Your task to perform on an android device: change the clock style Image 0: 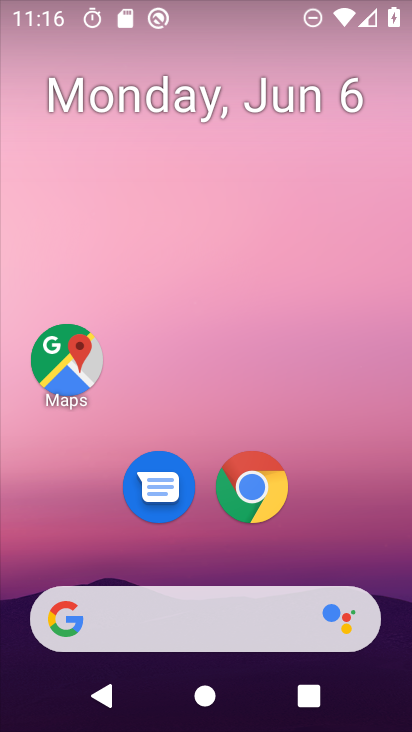
Step 0: drag from (406, 614) to (298, 89)
Your task to perform on an android device: change the clock style Image 1: 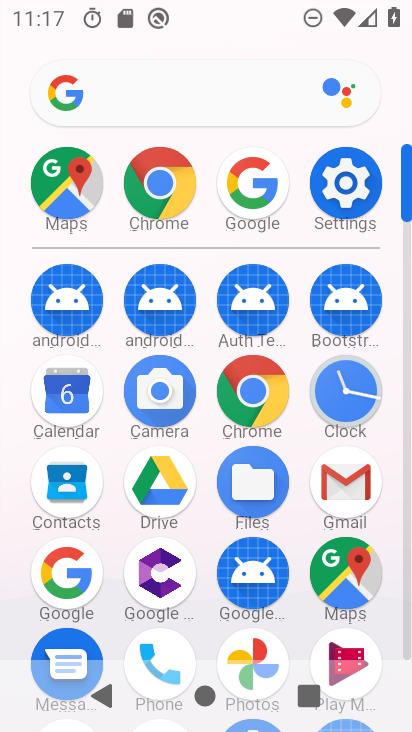
Step 1: click (323, 379)
Your task to perform on an android device: change the clock style Image 2: 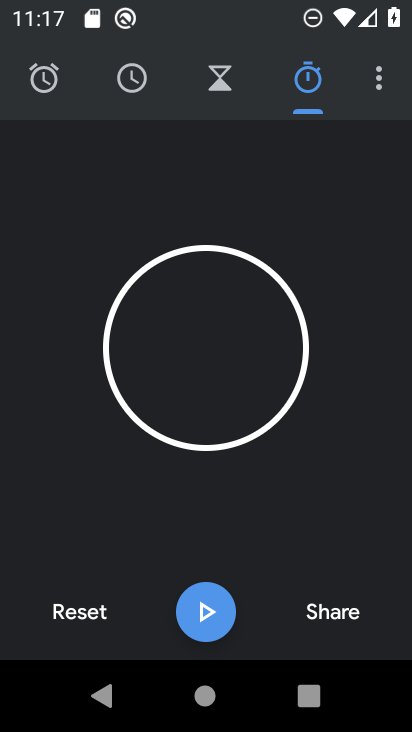
Step 2: click (378, 79)
Your task to perform on an android device: change the clock style Image 3: 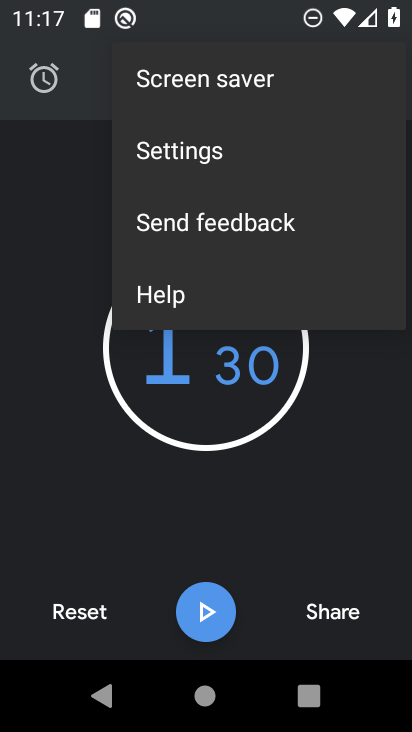
Step 3: click (267, 162)
Your task to perform on an android device: change the clock style Image 4: 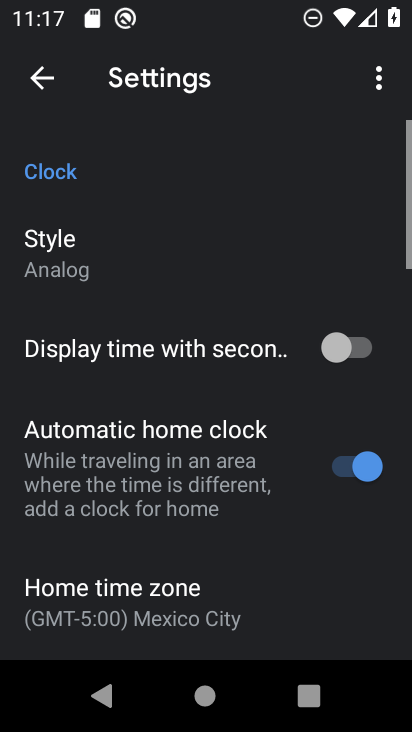
Step 4: click (154, 245)
Your task to perform on an android device: change the clock style Image 5: 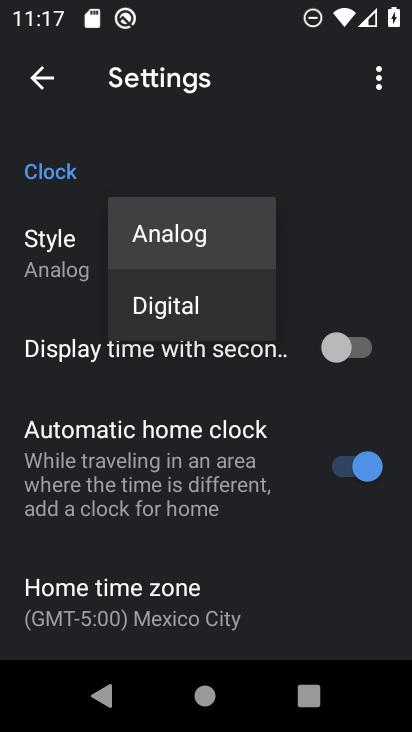
Step 5: click (199, 306)
Your task to perform on an android device: change the clock style Image 6: 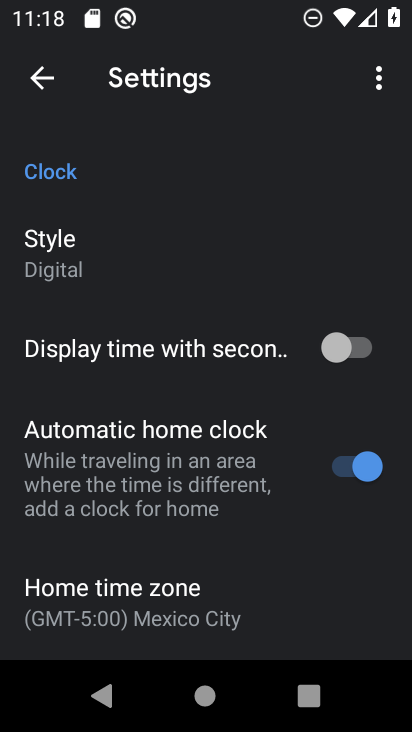
Step 6: task complete